Your task to perform on an android device: Go to privacy settings Image 0: 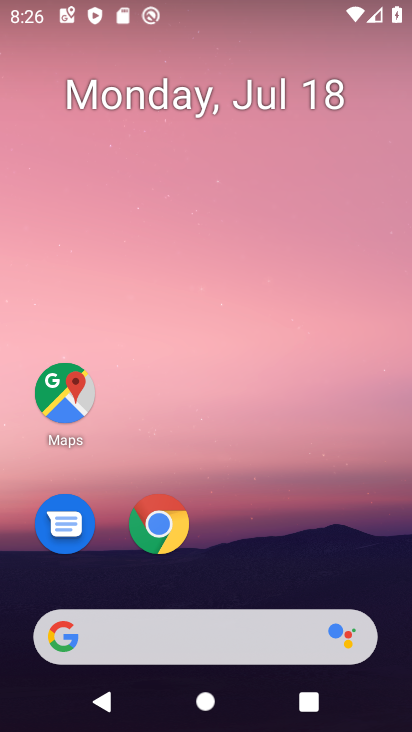
Step 0: drag from (285, 562) to (284, 20)
Your task to perform on an android device: Go to privacy settings Image 1: 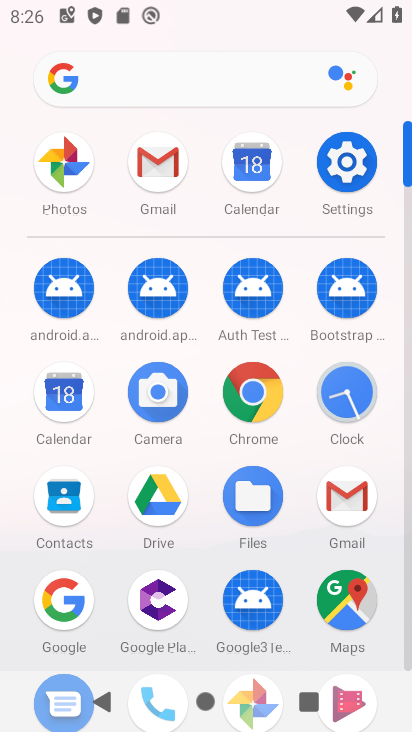
Step 1: click (349, 166)
Your task to perform on an android device: Go to privacy settings Image 2: 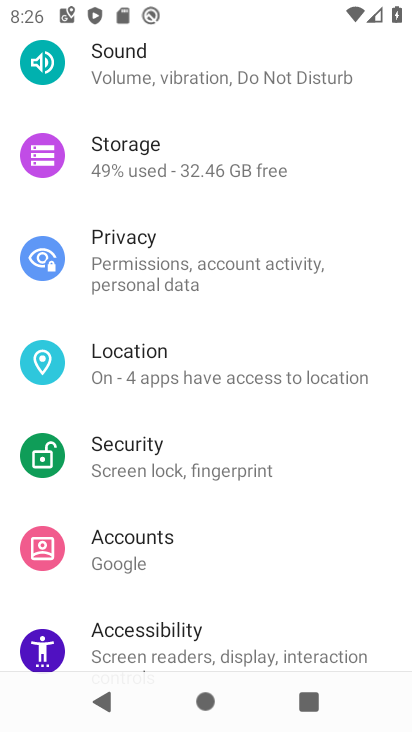
Step 2: click (234, 253)
Your task to perform on an android device: Go to privacy settings Image 3: 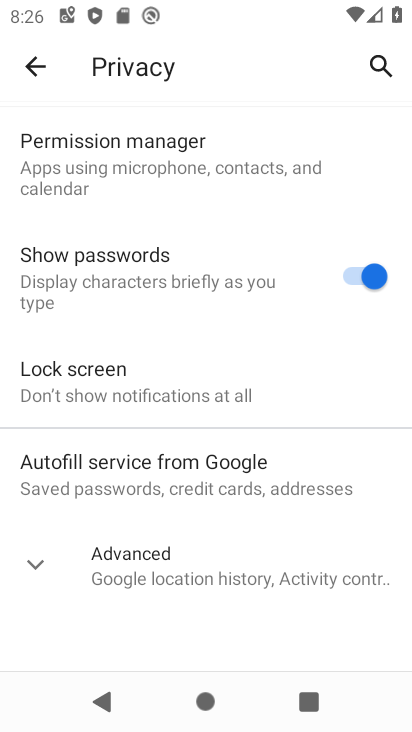
Step 3: click (41, 560)
Your task to perform on an android device: Go to privacy settings Image 4: 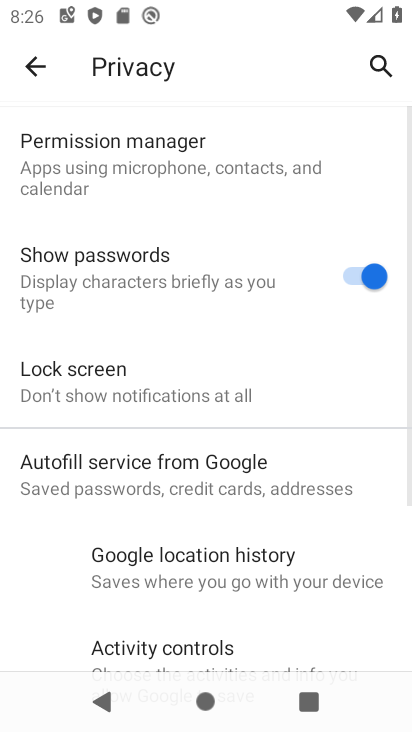
Step 4: task complete